Your task to perform on an android device: Check the news Image 0: 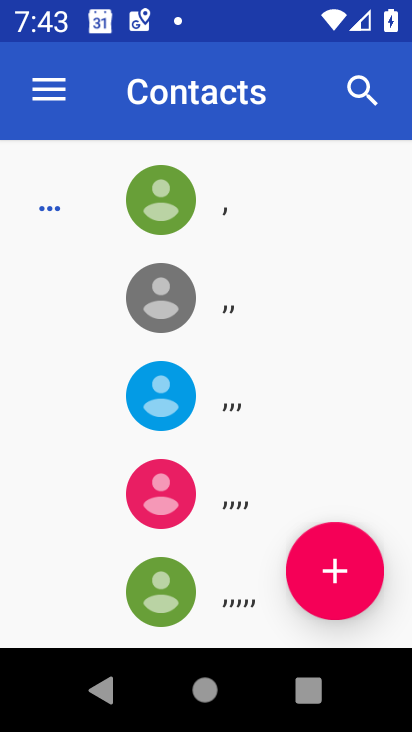
Step 0: press home button
Your task to perform on an android device: Check the news Image 1: 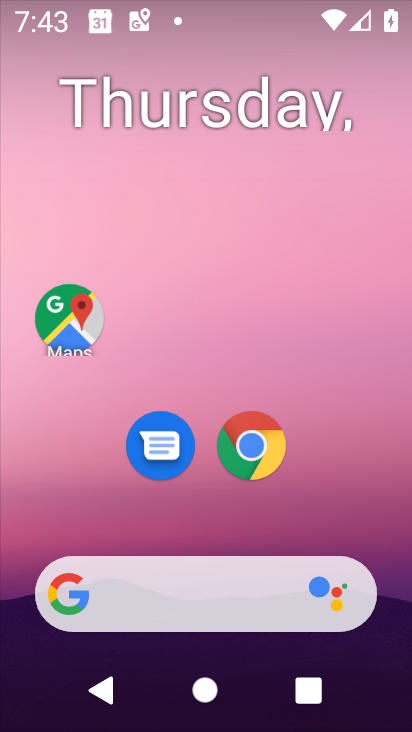
Step 1: drag from (381, 635) to (390, 598)
Your task to perform on an android device: Check the news Image 2: 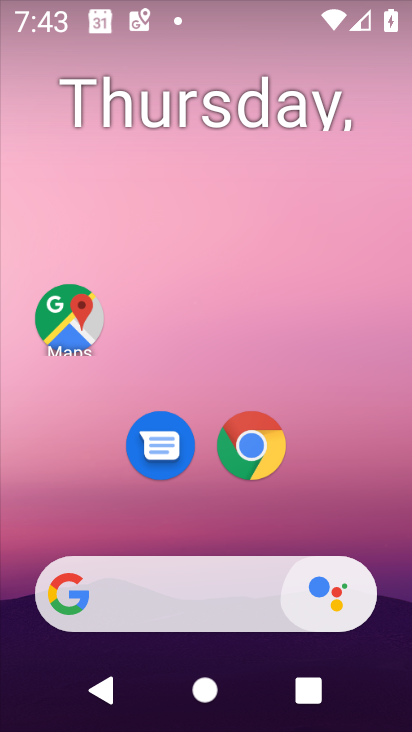
Step 2: drag from (366, 230) to (294, 24)
Your task to perform on an android device: Check the news Image 3: 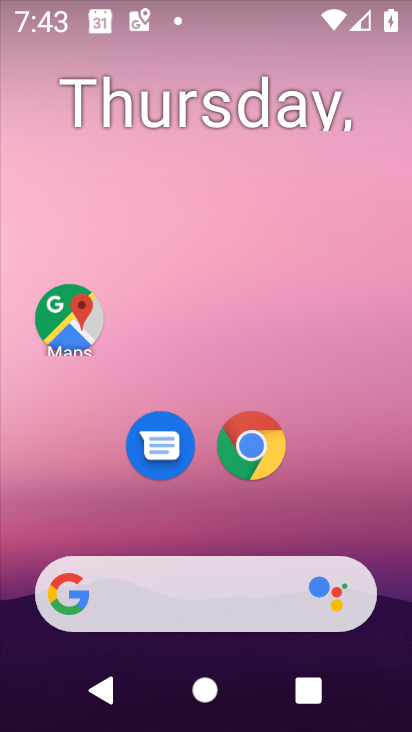
Step 3: drag from (393, 566) to (267, 2)
Your task to perform on an android device: Check the news Image 4: 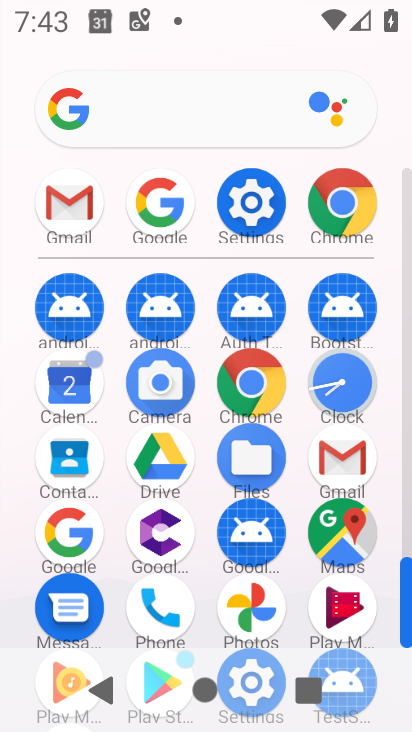
Step 4: click (59, 522)
Your task to perform on an android device: Check the news Image 5: 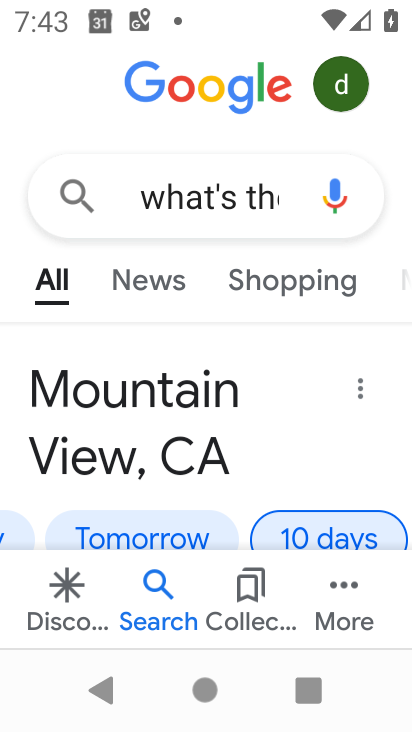
Step 5: press back button
Your task to perform on an android device: Check the news Image 6: 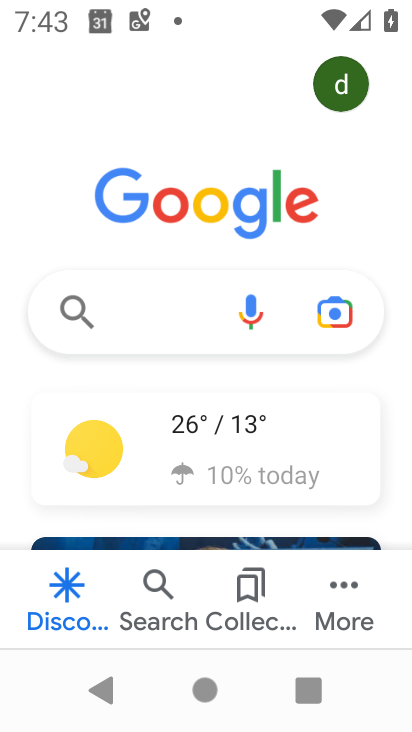
Step 6: click (164, 328)
Your task to perform on an android device: Check the news Image 7: 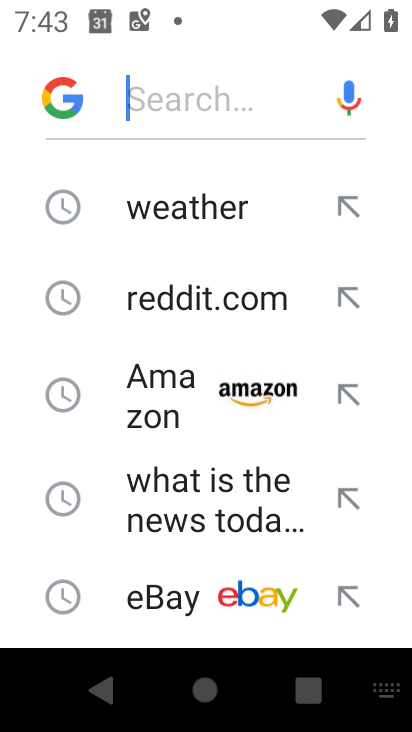
Step 7: type "news"
Your task to perform on an android device: Check the news Image 8: 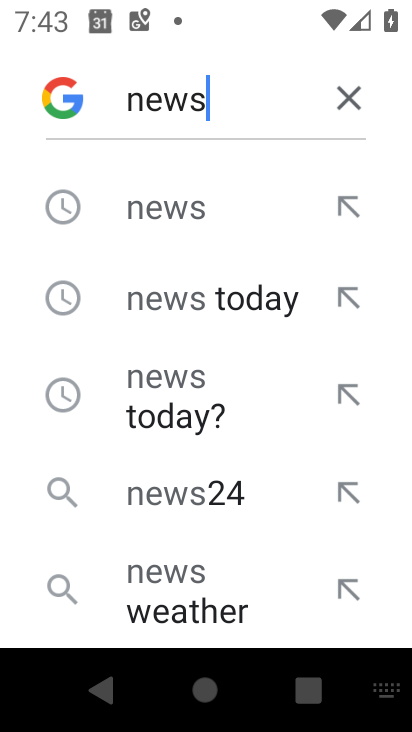
Step 8: click (192, 211)
Your task to perform on an android device: Check the news Image 9: 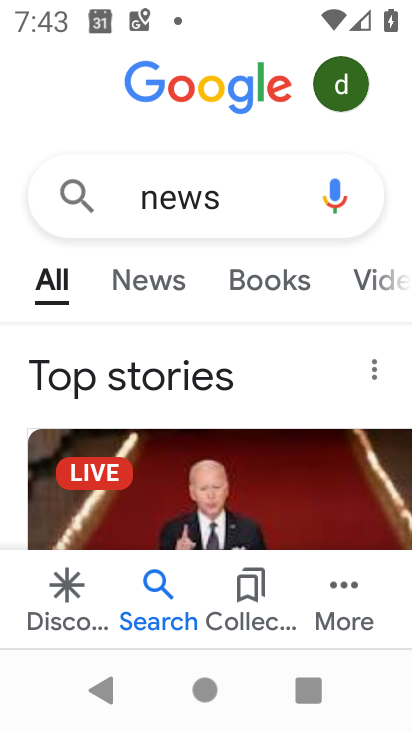
Step 9: task complete